Your task to perform on an android device: turn off notifications settings in the gmail app Image 0: 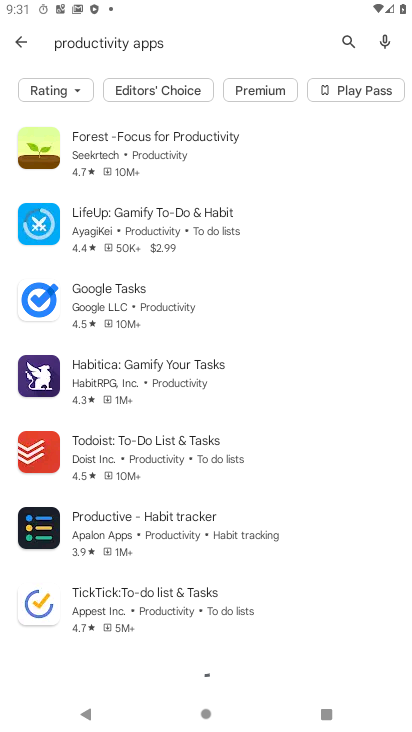
Step 0: press home button
Your task to perform on an android device: turn off notifications settings in the gmail app Image 1: 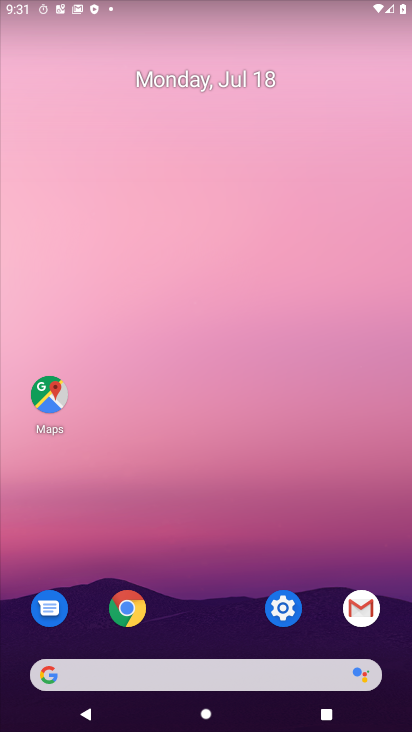
Step 1: click (345, 609)
Your task to perform on an android device: turn off notifications settings in the gmail app Image 2: 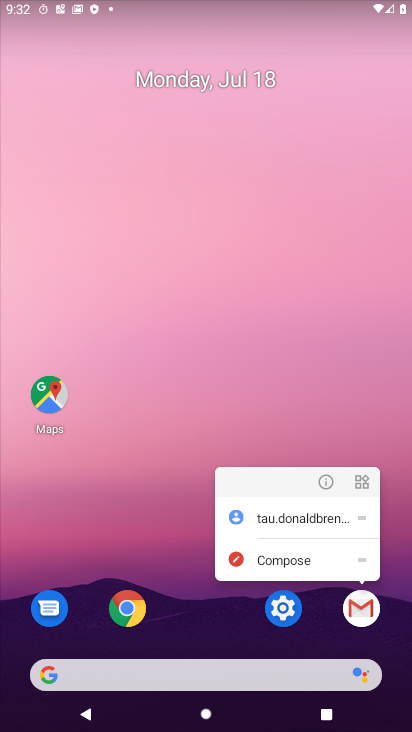
Step 2: click (357, 619)
Your task to perform on an android device: turn off notifications settings in the gmail app Image 3: 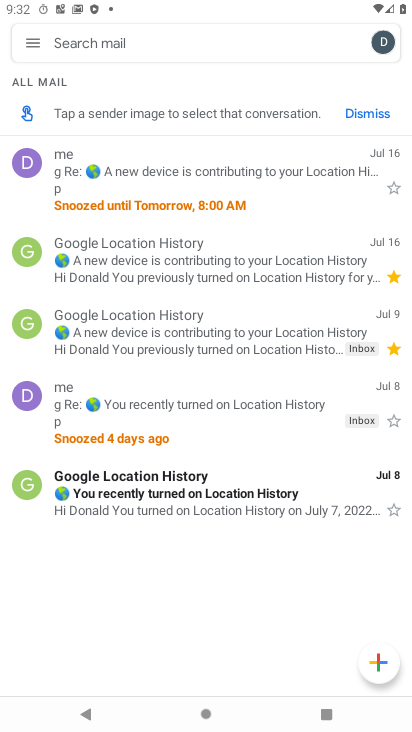
Step 3: click (27, 44)
Your task to perform on an android device: turn off notifications settings in the gmail app Image 4: 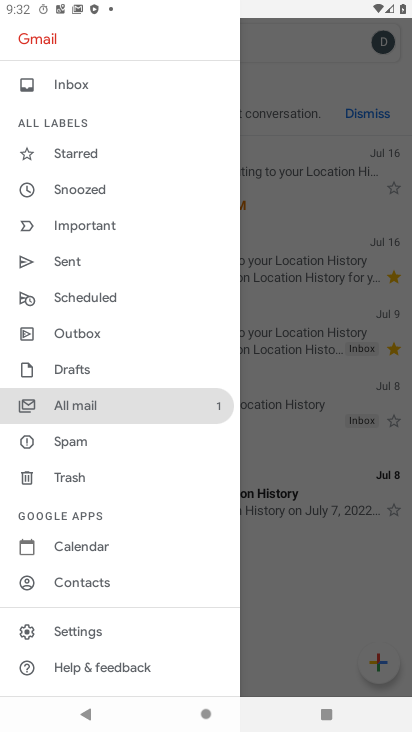
Step 4: click (86, 630)
Your task to perform on an android device: turn off notifications settings in the gmail app Image 5: 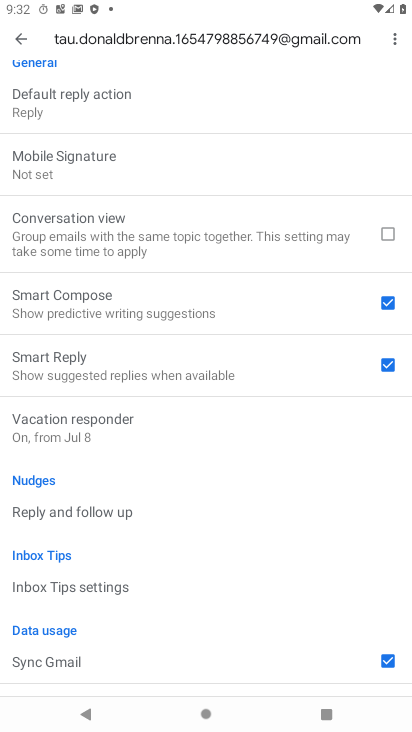
Step 5: drag from (111, 109) to (32, 304)
Your task to perform on an android device: turn off notifications settings in the gmail app Image 6: 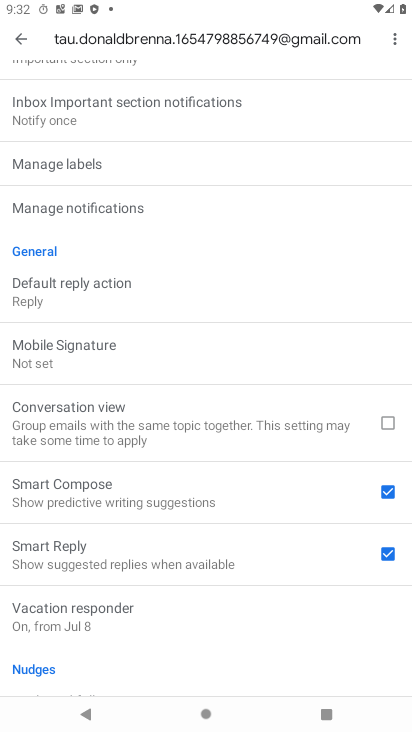
Step 6: drag from (110, 199) to (130, 311)
Your task to perform on an android device: turn off notifications settings in the gmail app Image 7: 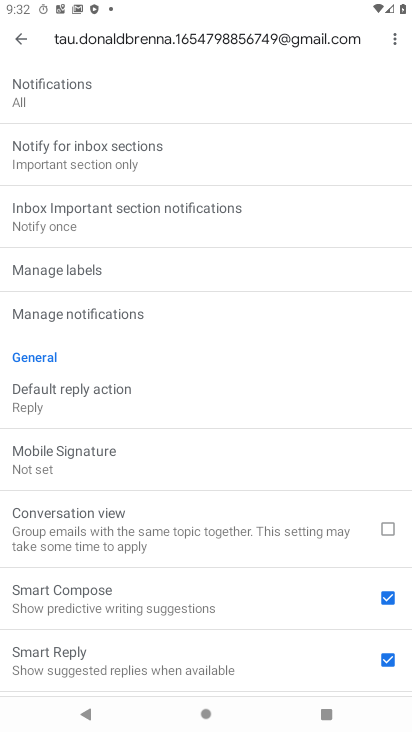
Step 7: click (91, 96)
Your task to perform on an android device: turn off notifications settings in the gmail app Image 8: 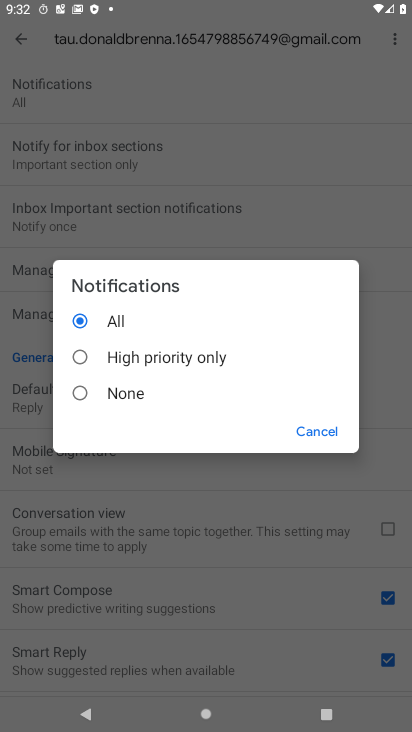
Step 8: click (141, 398)
Your task to perform on an android device: turn off notifications settings in the gmail app Image 9: 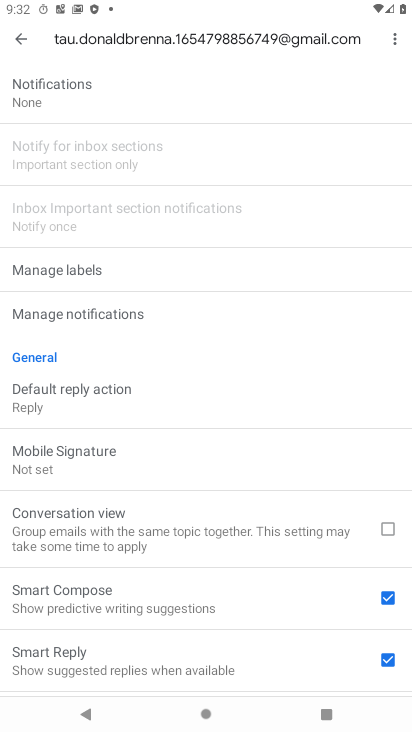
Step 9: task complete